Your task to perform on an android device: What's the weather today? Image 0: 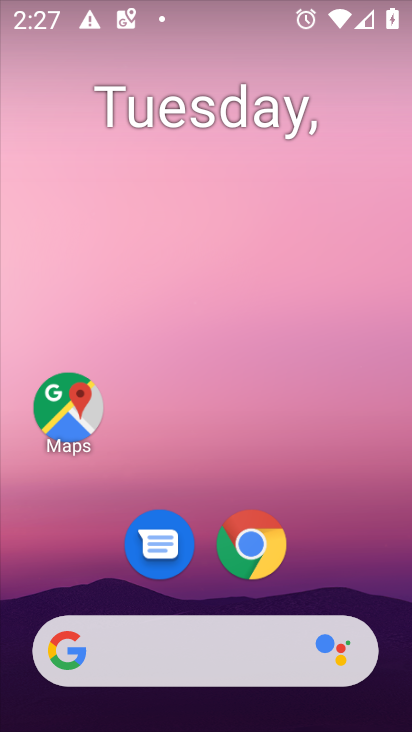
Step 0: drag from (296, 411) to (248, 14)
Your task to perform on an android device: What's the weather today? Image 1: 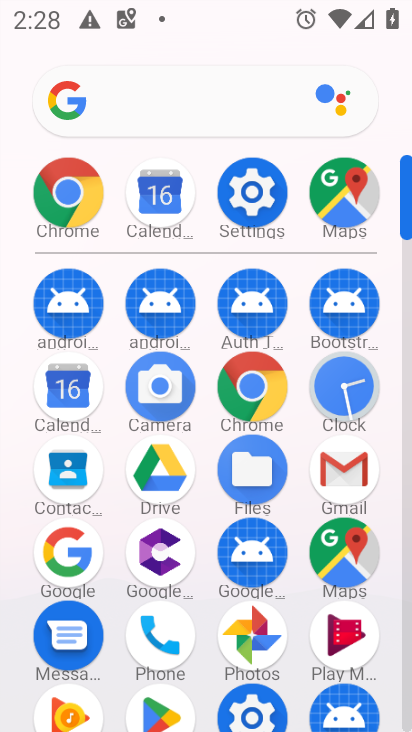
Step 1: click (247, 389)
Your task to perform on an android device: What's the weather today? Image 2: 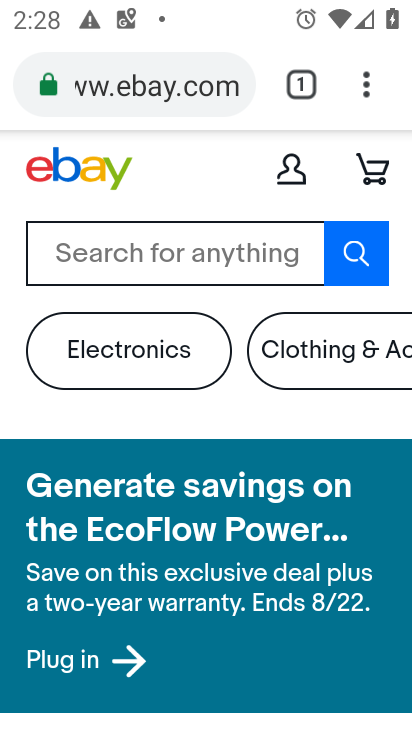
Step 2: click (217, 88)
Your task to perform on an android device: What's the weather today? Image 3: 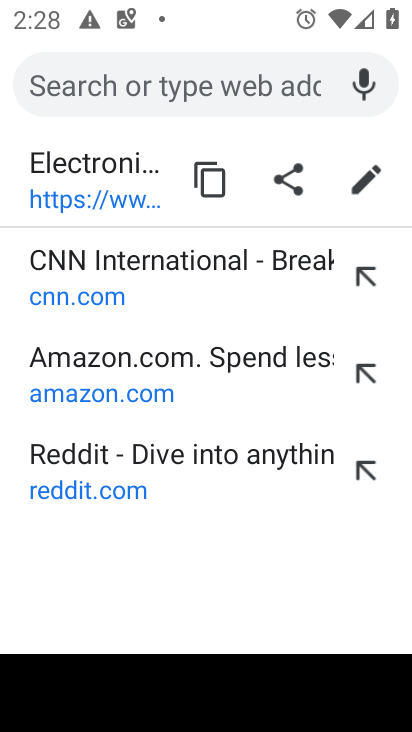
Step 3: type "weather"
Your task to perform on an android device: What's the weather today? Image 4: 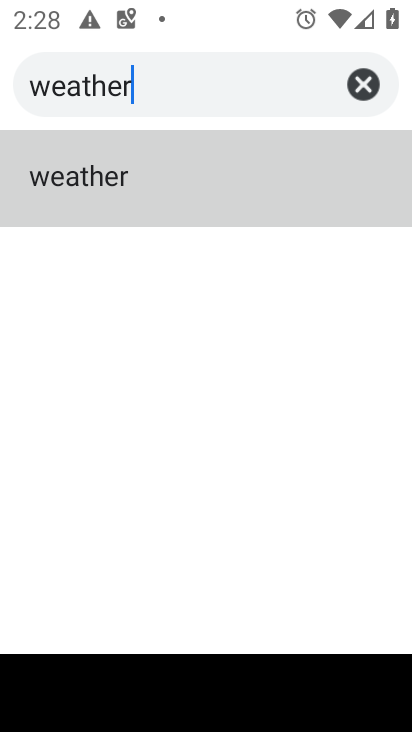
Step 4: click (109, 169)
Your task to perform on an android device: What's the weather today? Image 5: 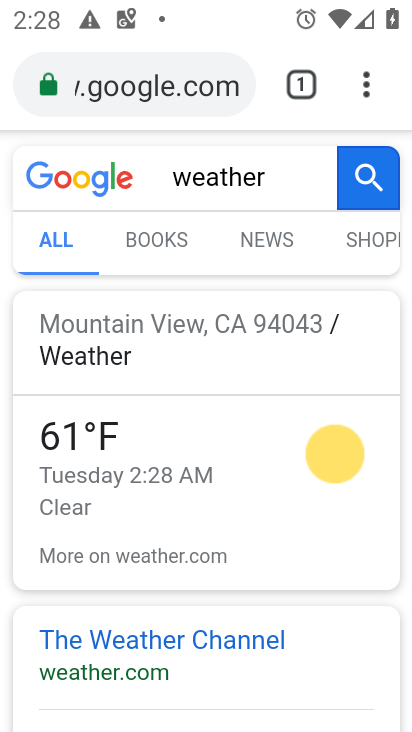
Step 5: task complete